Your task to perform on an android device: turn on bluetooth scan Image 0: 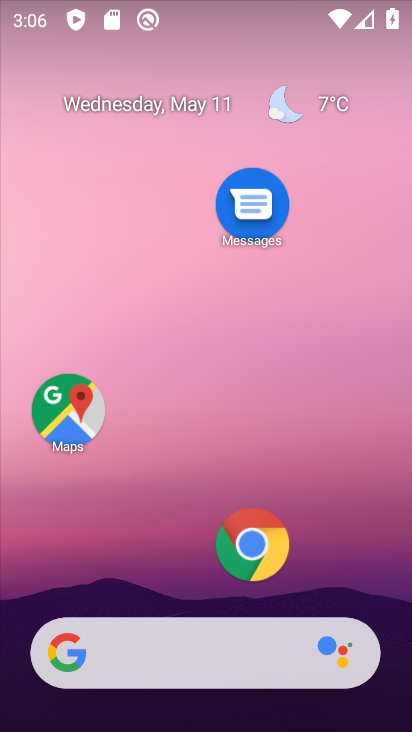
Step 0: drag from (184, 435) to (215, 19)
Your task to perform on an android device: turn on bluetooth scan Image 1: 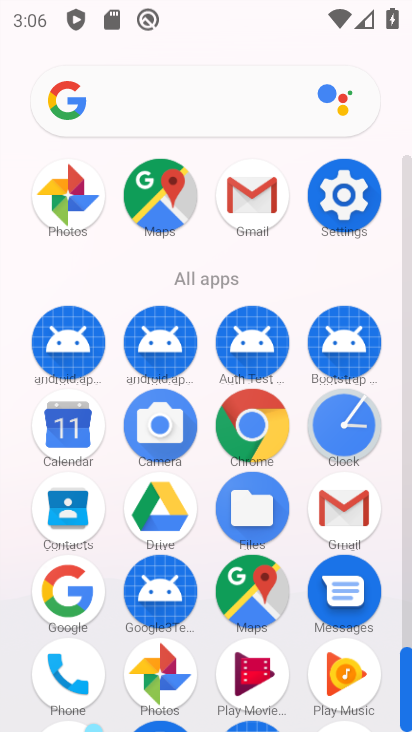
Step 1: click (343, 198)
Your task to perform on an android device: turn on bluetooth scan Image 2: 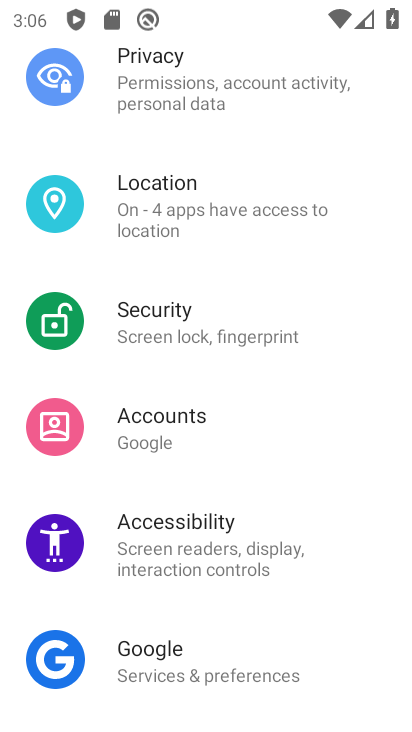
Step 2: drag from (249, 110) to (146, 619)
Your task to perform on an android device: turn on bluetooth scan Image 3: 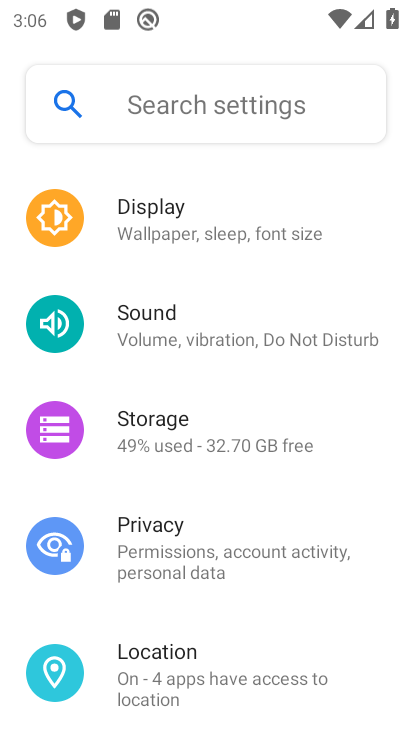
Step 3: drag from (186, 204) to (184, 622)
Your task to perform on an android device: turn on bluetooth scan Image 4: 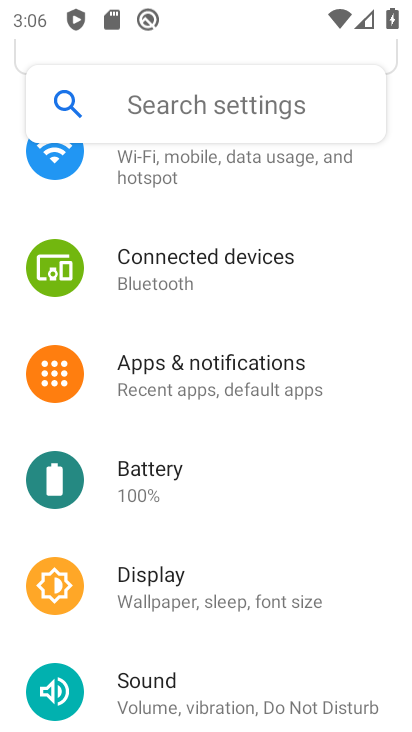
Step 4: click (145, 261)
Your task to perform on an android device: turn on bluetooth scan Image 5: 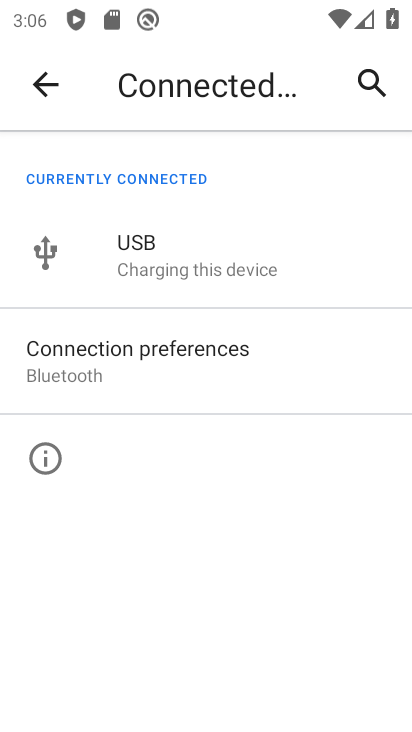
Step 5: click (106, 357)
Your task to perform on an android device: turn on bluetooth scan Image 6: 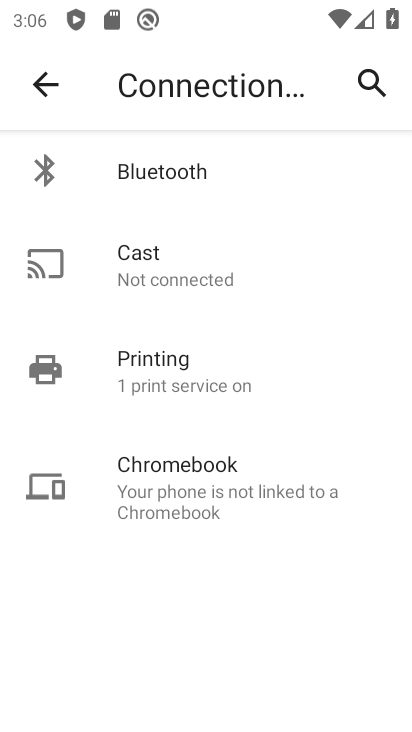
Step 6: click (159, 158)
Your task to perform on an android device: turn on bluetooth scan Image 7: 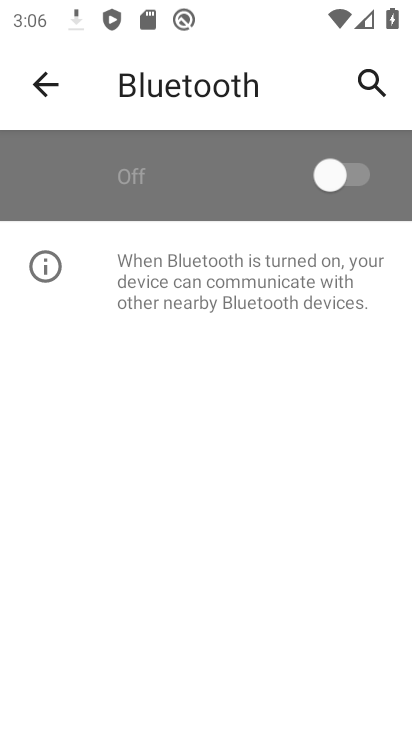
Step 7: click (345, 168)
Your task to perform on an android device: turn on bluetooth scan Image 8: 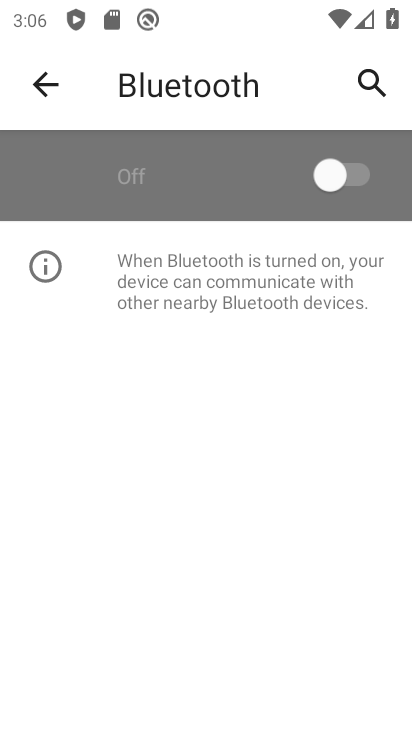
Step 8: task complete